Your task to perform on an android device: Open calendar and show me the second week of next month Image 0: 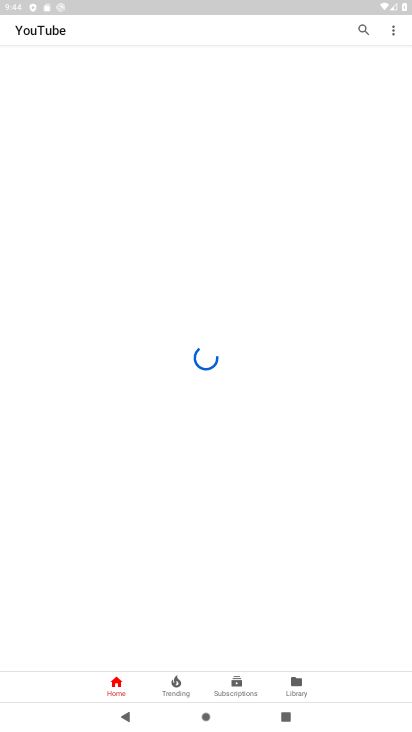
Step 0: drag from (214, 642) to (190, 335)
Your task to perform on an android device: Open calendar and show me the second week of next month Image 1: 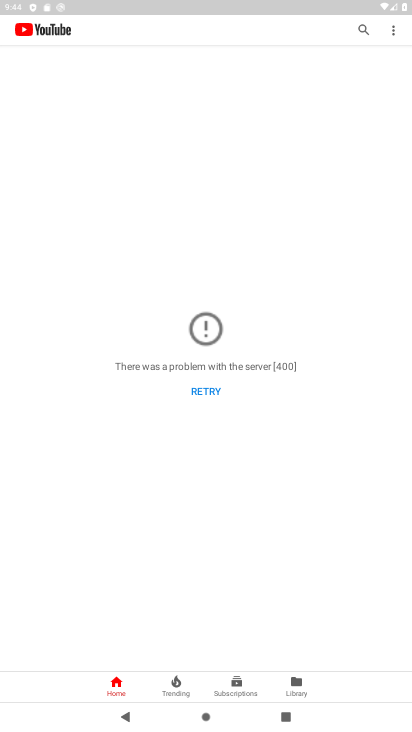
Step 1: press home button
Your task to perform on an android device: Open calendar and show me the second week of next month Image 2: 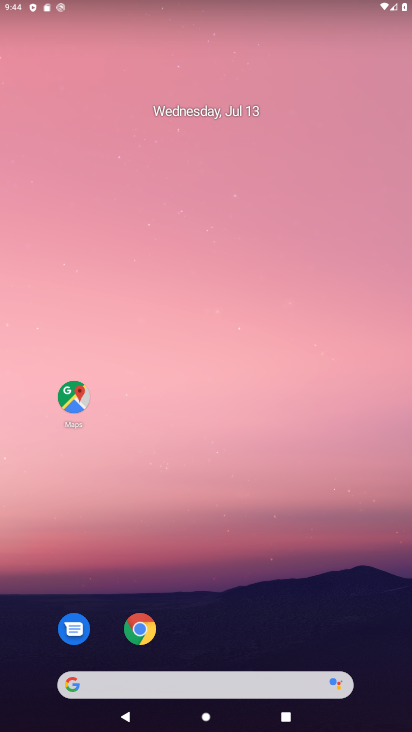
Step 2: drag from (207, 654) to (181, 107)
Your task to perform on an android device: Open calendar and show me the second week of next month Image 3: 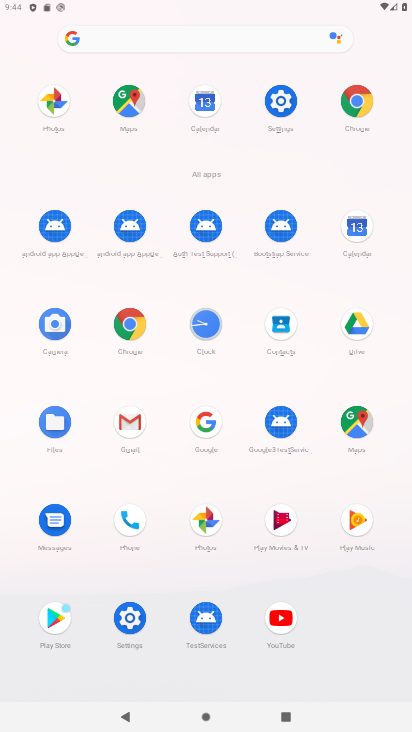
Step 3: click (355, 223)
Your task to perform on an android device: Open calendar and show me the second week of next month Image 4: 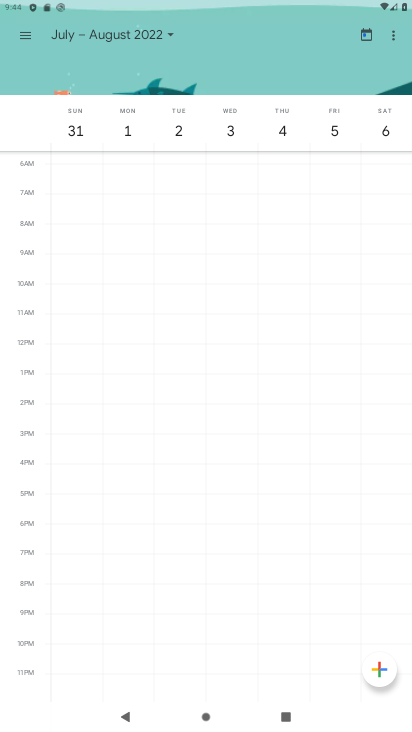
Step 4: drag from (383, 125) to (105, 127)
Your task to perform on an android device: Open calendar and show me the second week of next month Image 5: 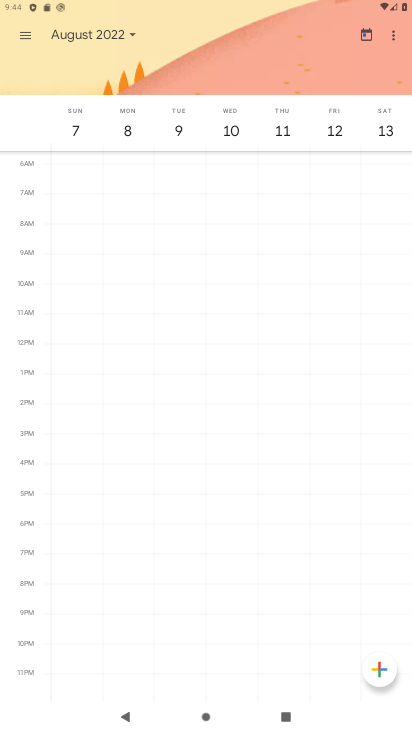
Step 5: click (77, 132)
Your task to perform on an android device: Open calendar and show me the second week of next month Image 6: 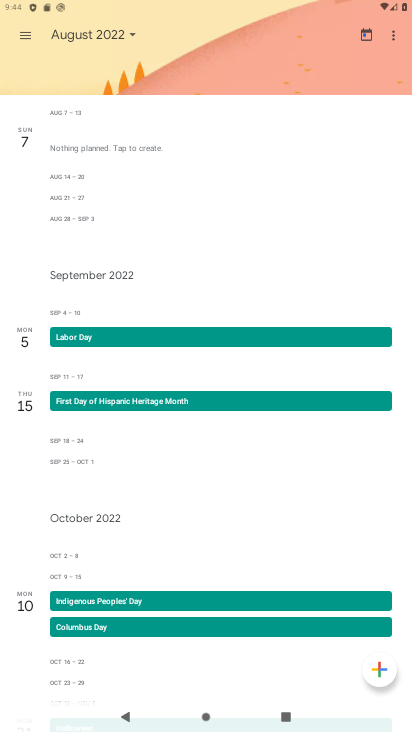
Step 6: task complete